Your task to perform on an android device: Check the weather Image 0: 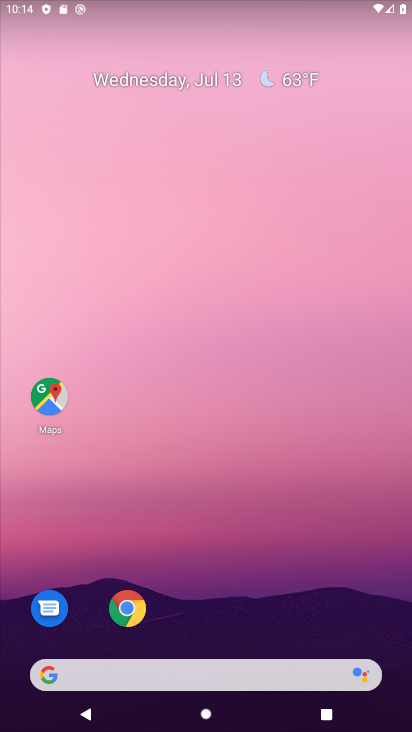
Step 0: click (118, 595)
Your task to perform on an android device: Check the weather Image 1: 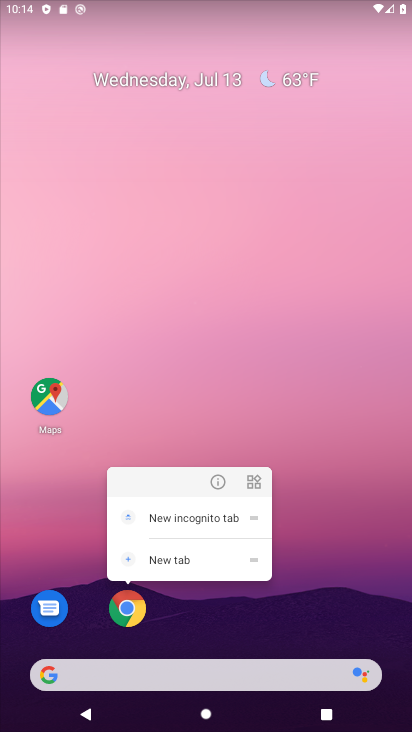
Step 1: click (351, 636)
Your task to perform on an android device: Check the weather Image 2: 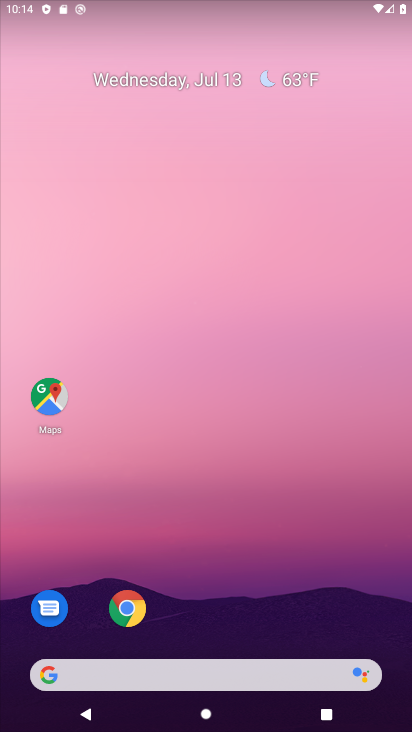
Step 2: drag from (352, 614) to (332, 3)
Your task to perform on an android device: Check the weather Image 3: 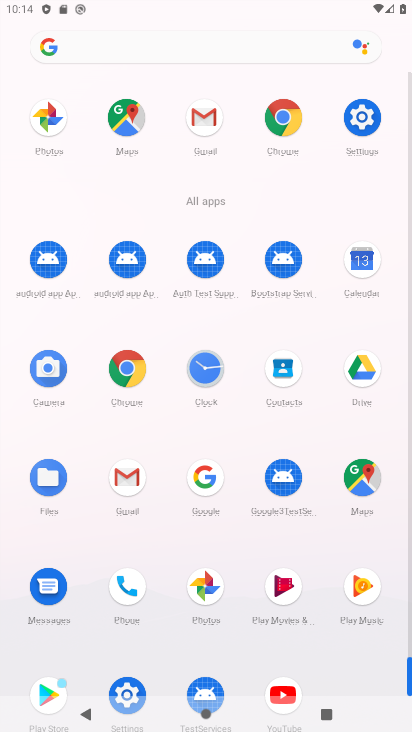
Step 3: click (134, 368)
Your task to perform on an android device: Check the weather Image 4: 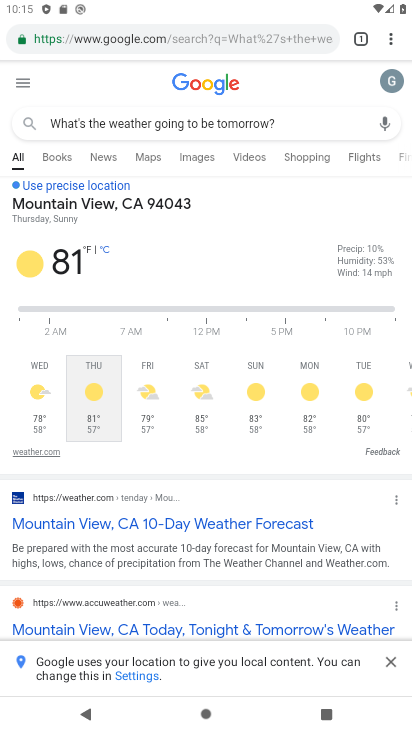
Step 4: click (123, 28)
Your task to perform on an android device: Check the weather Image 5: 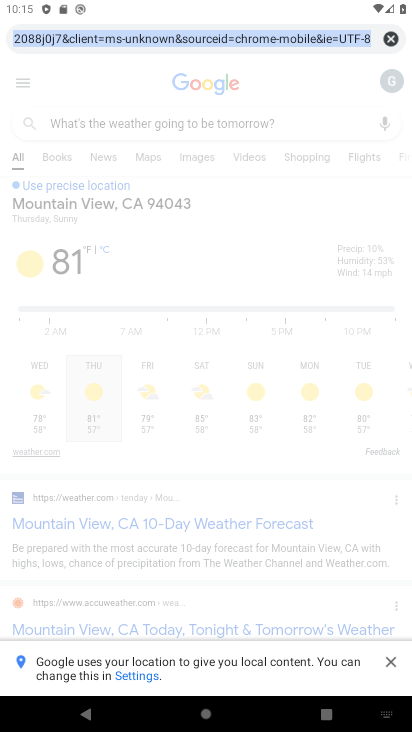
Step 5: click (388, 38)
Your task to perform on an android device: Check the weather Image 6: 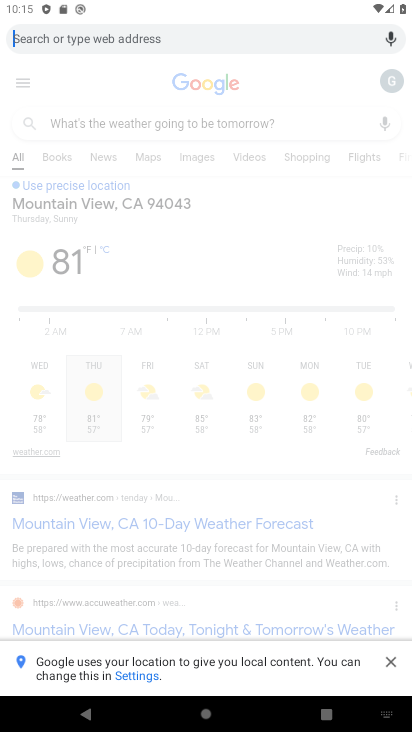
Step 6: type "Check the weather"
Your task to perform on an android device: Check the weather Image 7: 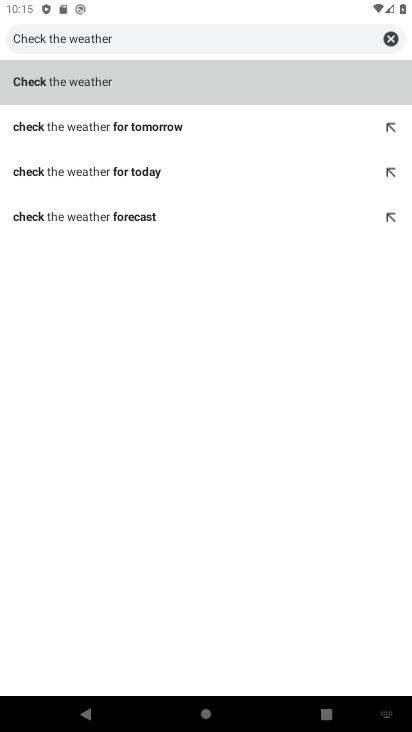
Step 7: click (30, 88)
Your task to perform on an android device: Check the weather Image 8: 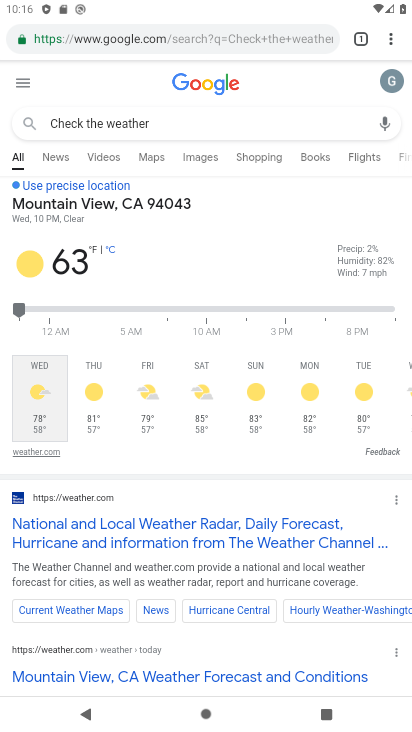
Step 8: task complete